Your task to perform on an android device: Open wifi settings Image 0: 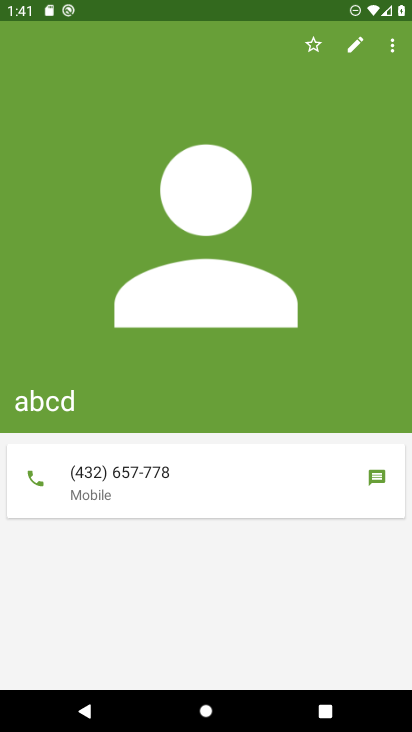
Step 0: press home button
Your task to perform on an android device: Open wifi settings Image 1: 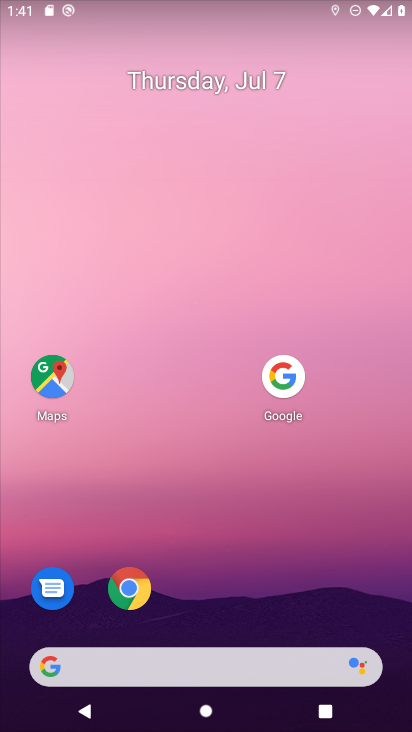
Step 1: drag from (148, 675) to (268, 9)
Your task to perform on an android device: Open wifi settings Image 2: 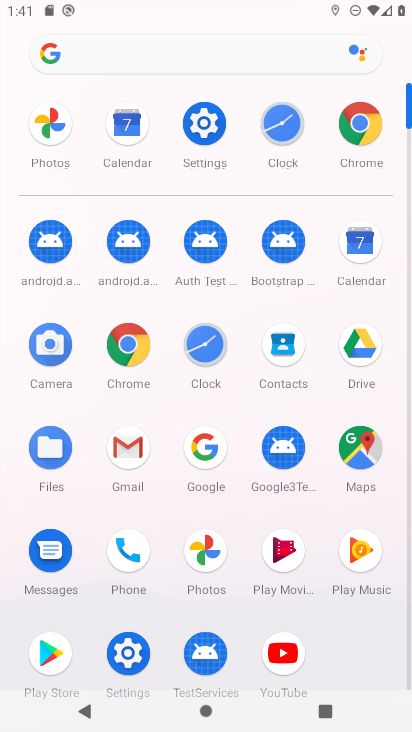
Step 2: click (188, 122)
Your task to perform on an android device: Open wifi settings Image 3: 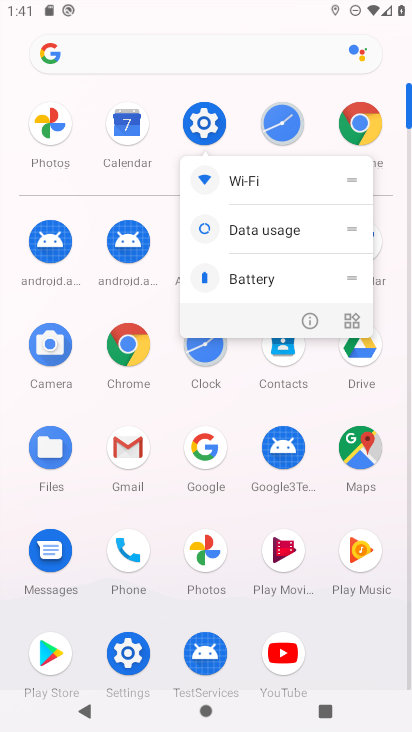
Step 3: click (205, 125)
Your task to perform on an android device: Open wifi settings Image 4: 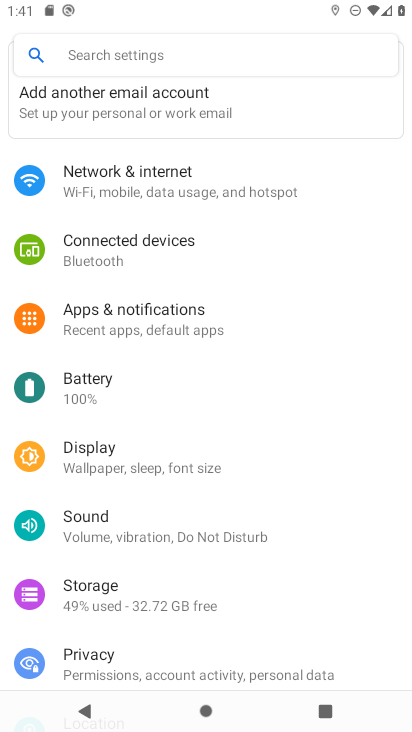
Step 4: click (141, 181)
Your task to perform on an android device: Open wifi settings Image 5: 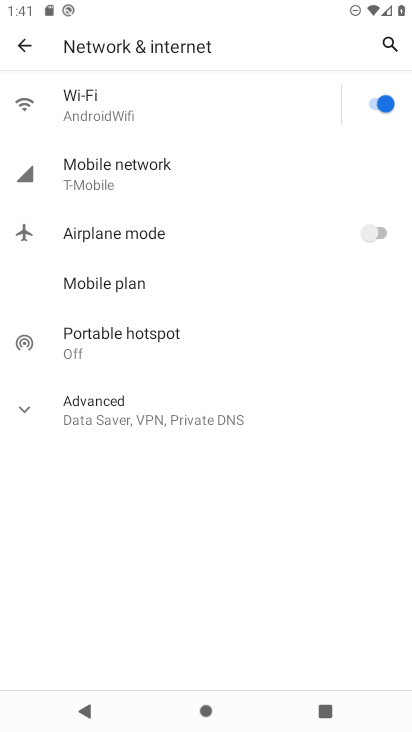
Step 5: click (106, 108)
Your task to perform on an android device: Open wifi settings Image 6: 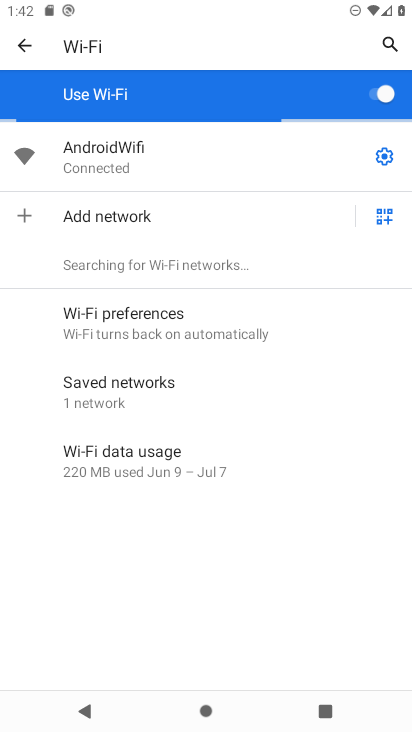
Step 6: task complete